Your task to perform on an android device: change the upload size in google photos Image 0: 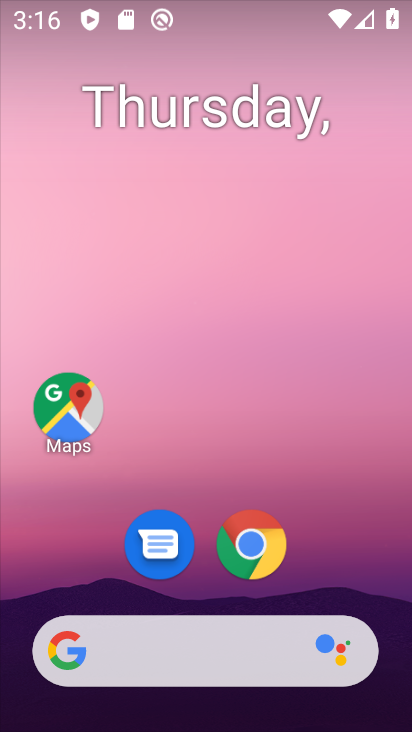
Step 0: click (408, 589)
Your task to perform on an android device: change the upload size in google photos Image 1: 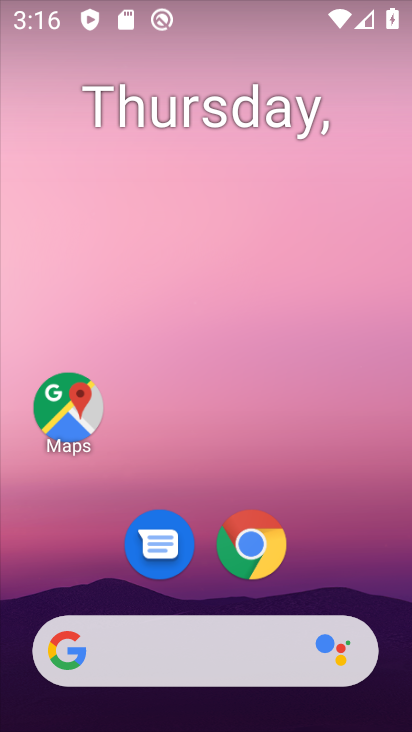
Step 1: drag from (340, 594) to (348, 4)
Your task to perform on an android device: change the upload size in google photos Image 2: 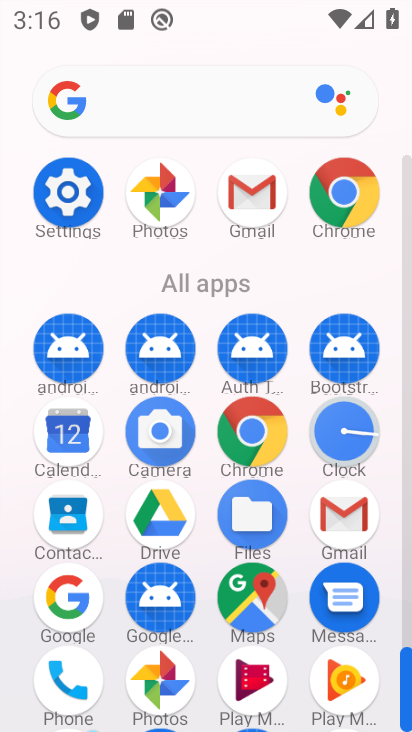
Step 2: drag from (286, 560) to (310, 217)
Your task to perform on an android device: change the upload size in google photos Image 3: 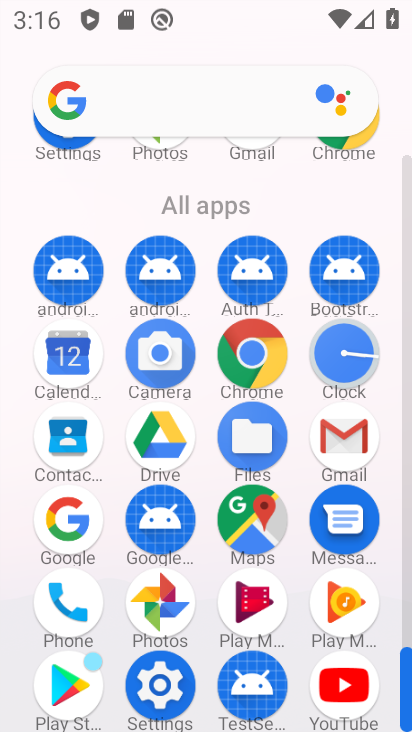
Step 3: click (138, 612)
Your task to perform on an android device: change the upload size in google photos Image 4: 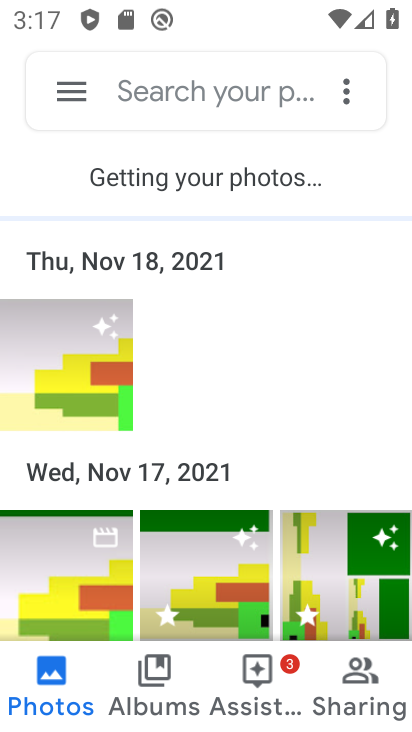
Step 4: click (75, 83)
Your task to perform on an android device: change the upload size in google photos Image 5: 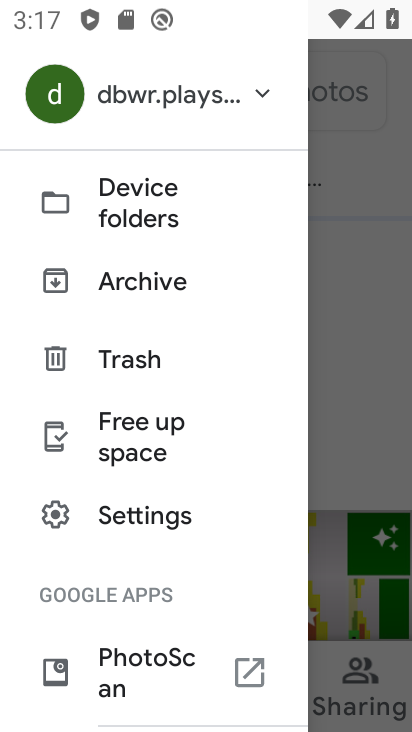
Step 5: drag from (155, 637) to (168, 258)
Your task to perform on an android device: change the upload size in google photos Image 6: 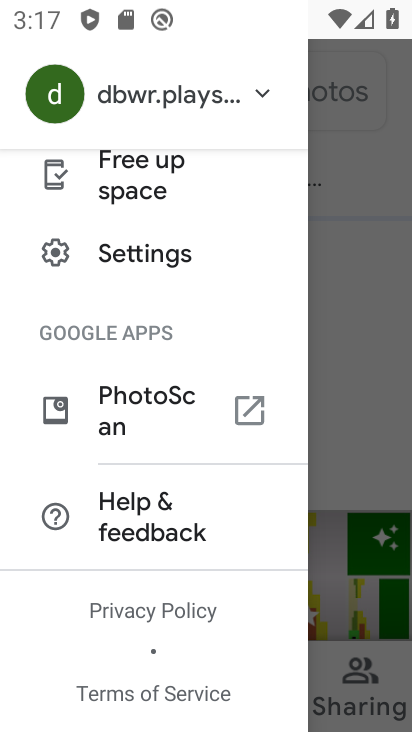
Step 6: click (129, 261)
Your task to perform on an android device: change the upload size in google photos Image 7: 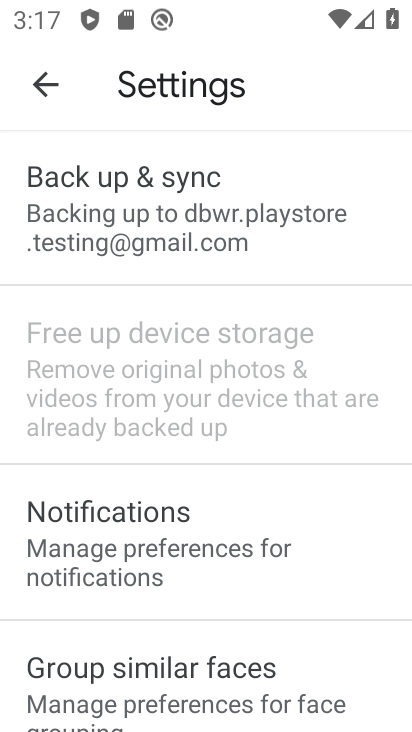
Step 7: click (179, 205)
Your task to perform on an android device: change the upload size in google photos Image 8: 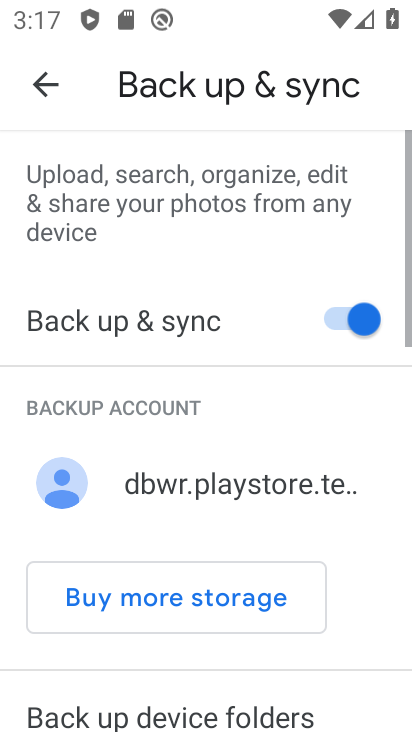
Step 8: drag from (183, 461) to (194, 127)
Your task to perform on an android device: change the upload size in google photos Image 9: 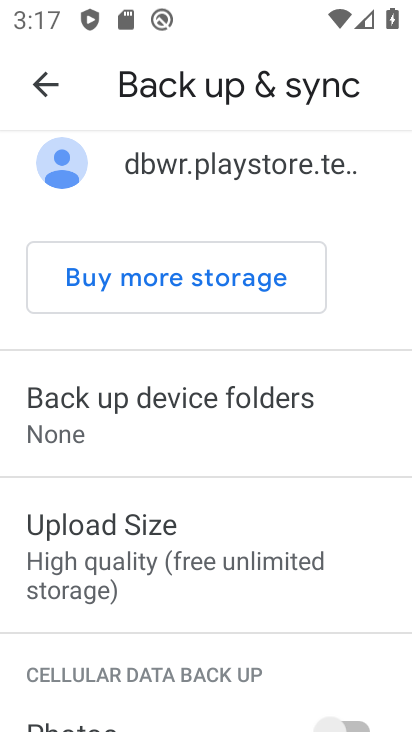
Step 9: click (165, 550)
Your task to perform on an android device: change the upload size in google photos Image 10: 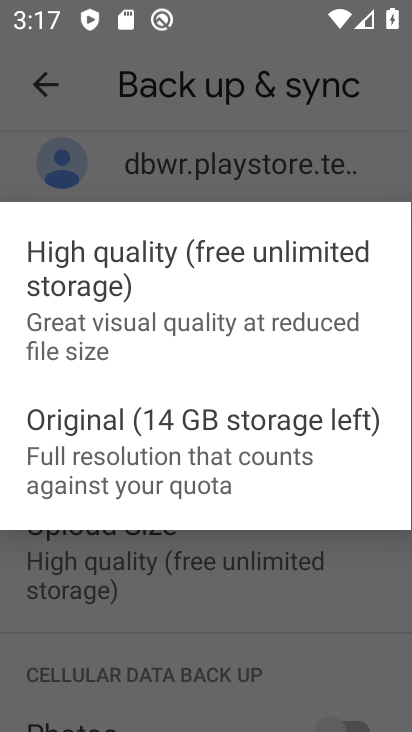
Step 10: click (150, 440)
Your task to perform on an android device: change the upload size in google photos Image 11: 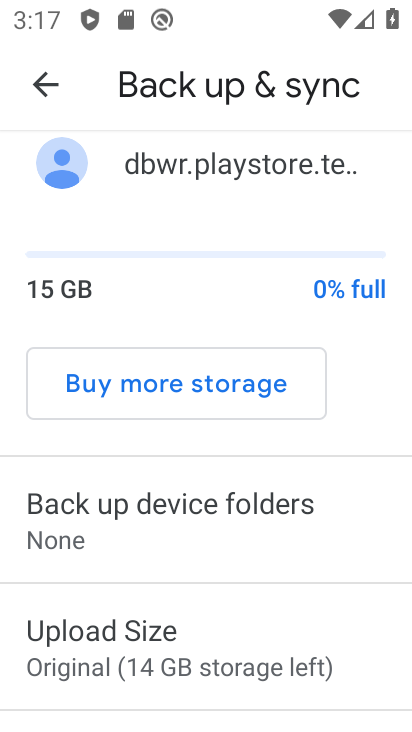
Step 11: task complete